Your task to perform on an android device: Open the Play Movies app and select the watchlist tab. Image 0: 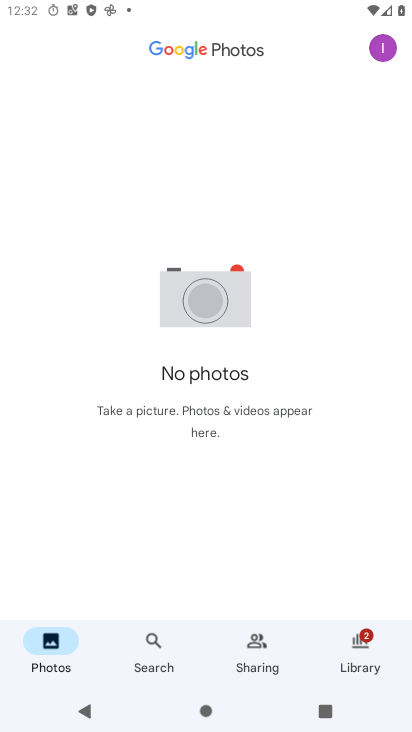
Step 0: press home button
Your task to perform on an android device: Open the Play Movies app and select the watchlist tab. Image 1: 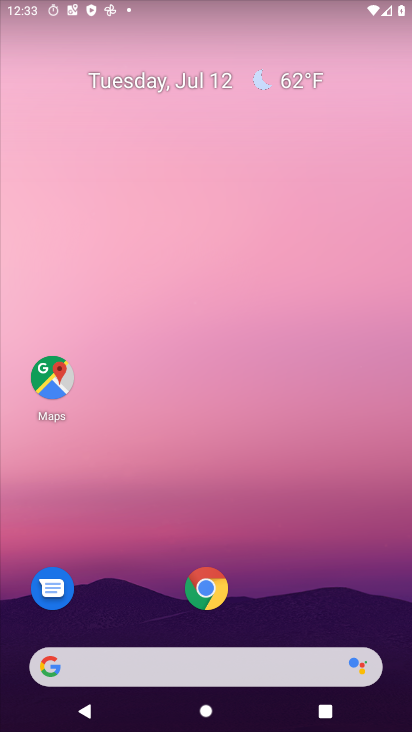
Step 1: drag from (188, 627) to (263, 119)
Your task to perform on an android device: Open the Play Movies app and select the watchlist tab. Image 2: 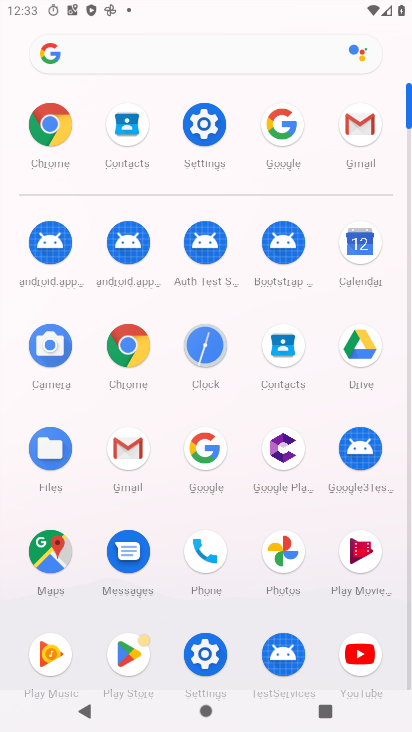
Step 2: click (358, 549)
Your task to perform on an android device: Open the Play Movies app and select the watchlist tab. Image 3: 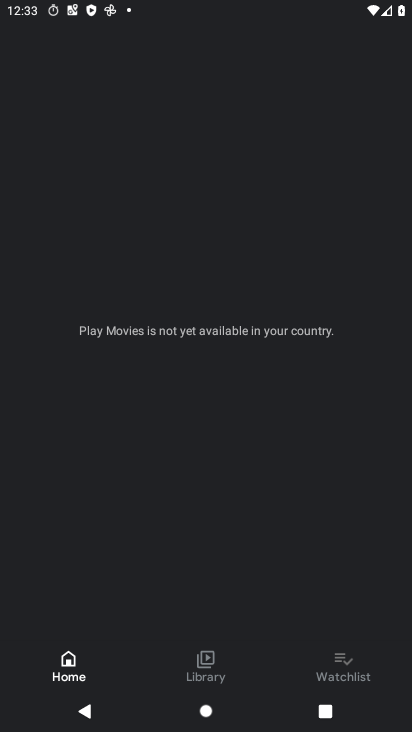
Step 3: click (349, 688)
Your task to perform on an android device: Open the Play Movies app and select the watchlist tab. Image 4: 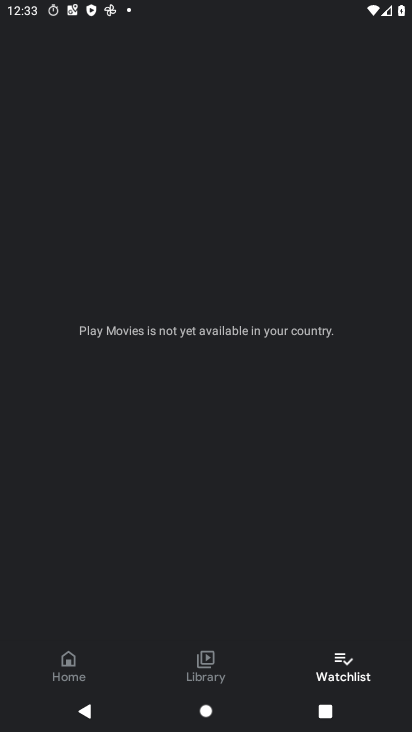
Step 4: task complete